Your task to perform on an android device: Open the calendar and show me this week's events? Image 0: 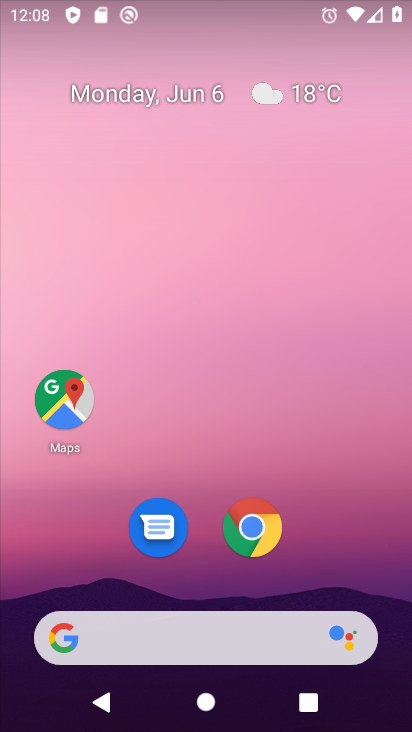
Step 0: drag from (192, 587) to (289, 66)
Your task to perform on an android device: Open the calendar and show me this week's events? Image 1: 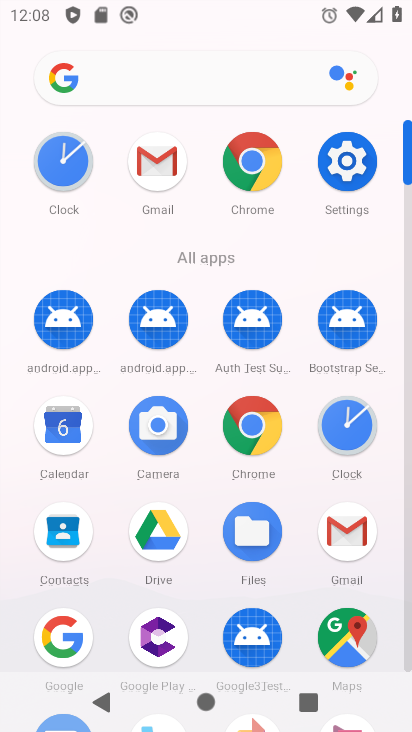
Step 1: click (79, 441)
Your task to perform on an android device: Open the calendar and show me this week's events? Image 2: 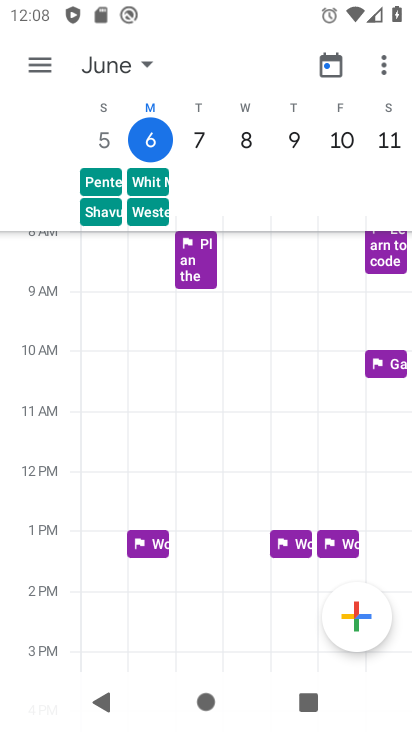
Step 2: task complete